Your task to perform on an android device: change keyboard looks Image 0: 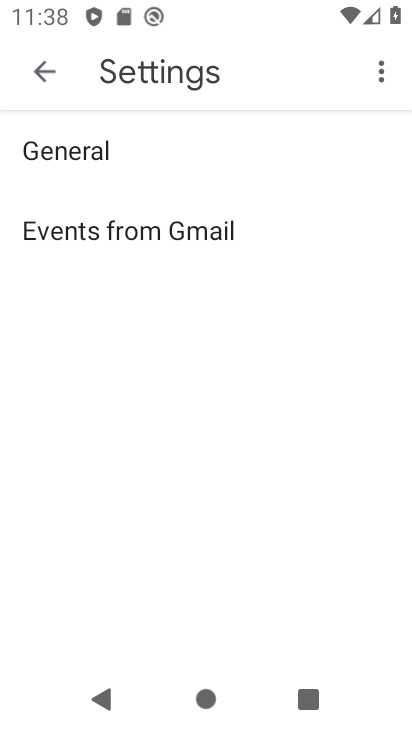
Step 0: press home button
Your task to perform on an android device: change keyboard looks Image 1: 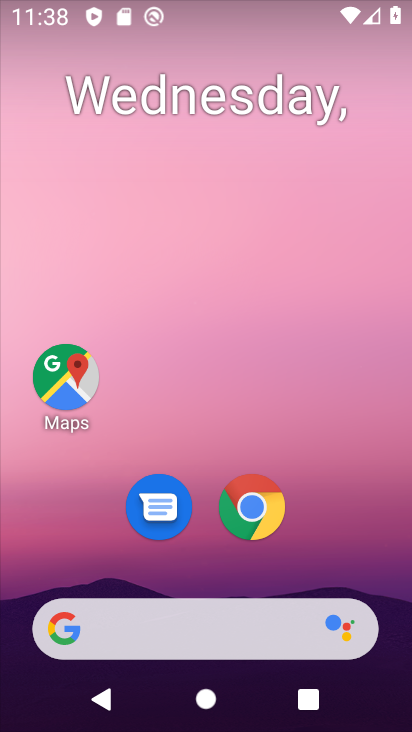
Step 1: drag from (265, 607) to (360, 84)
Your task to perform on an android device: change keyboard looks Image 2: 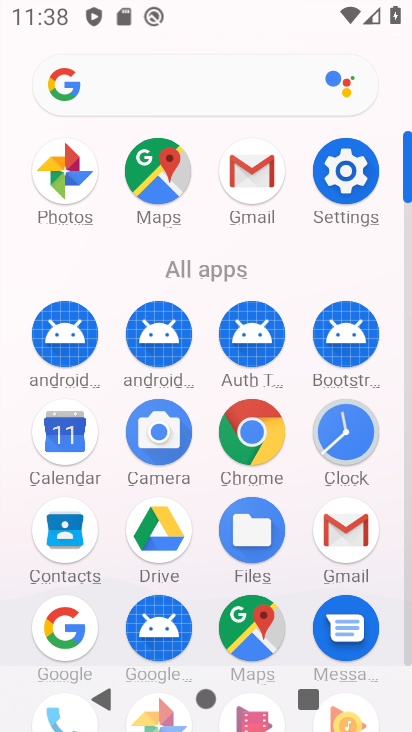
Step 2: click (348, 172)
Your task to perform on an android device: change keyboard looks Image 3: 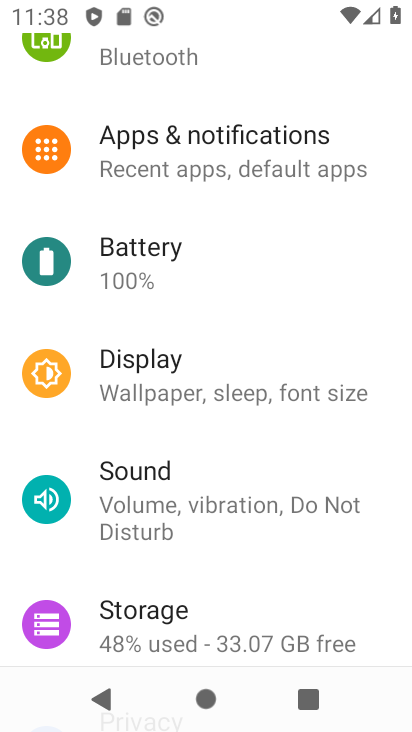
Step 3: drag from (261, 485) to (286, 169)
Your task to perform on an android device: change keyboard looks Image 4: 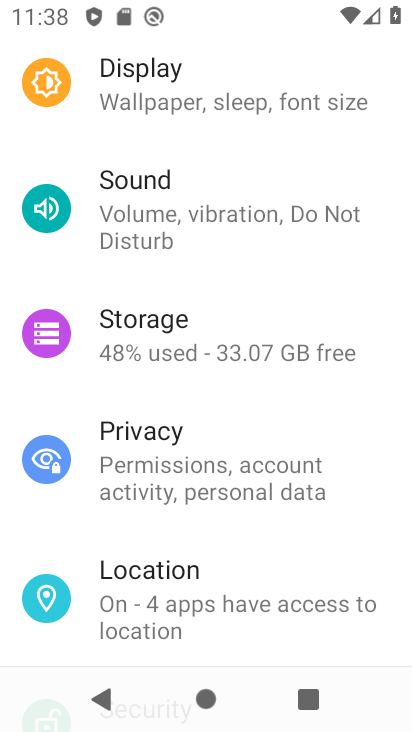
Step 4: drag from (242, 513) to (267, 227)
Your task to perform on an android device: change keyboard looks Image 5: 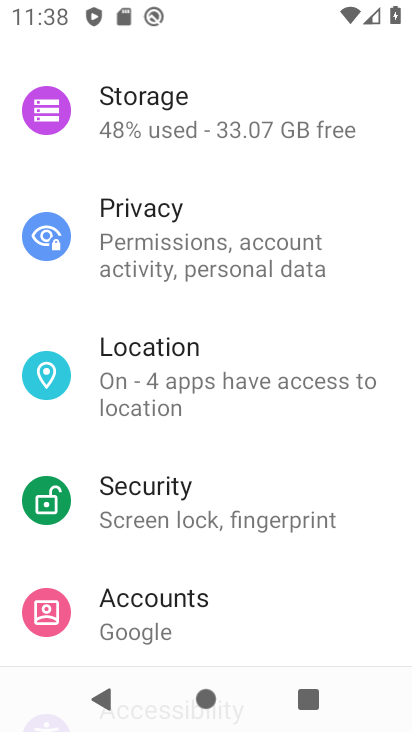
Step 5: drag from (248, 527) to (323, 184)
Your task to perform on an android device: change keyboard looks Image 6: 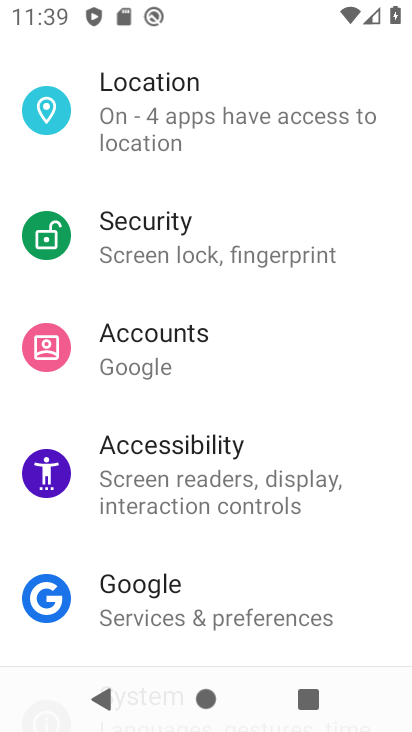
Step 6: drag from (257, 465) to (284, 206)
Your task to perform on an android device: change keyboard looks Image 7: 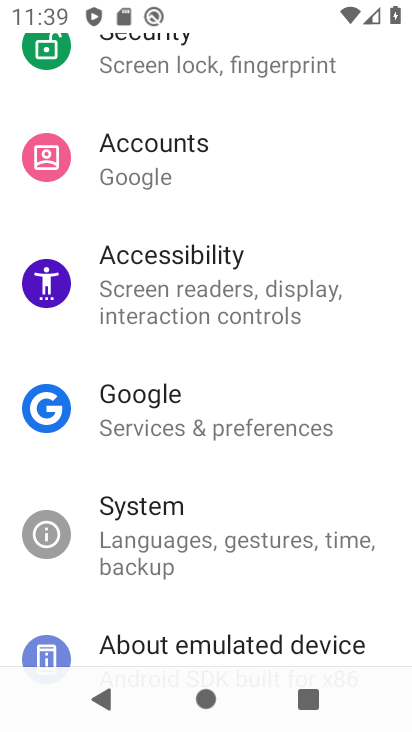
Step 7: click (222, 540)
Your task to perform on an android device: change keyboard looks Image 8: 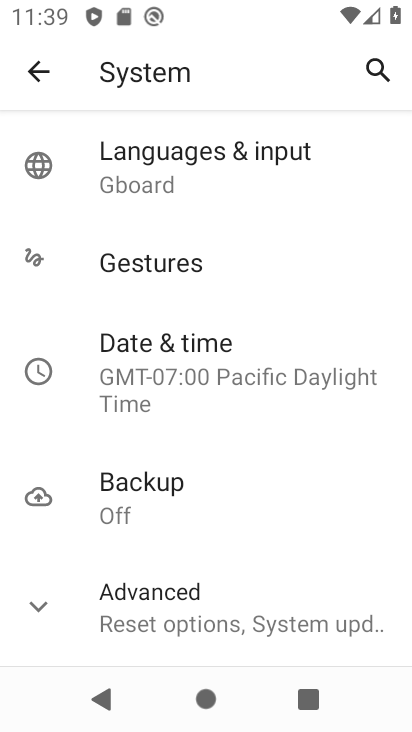
Step 8: click (179, 163)
Your task to perform on an android device: change keyboard looks Image 9: 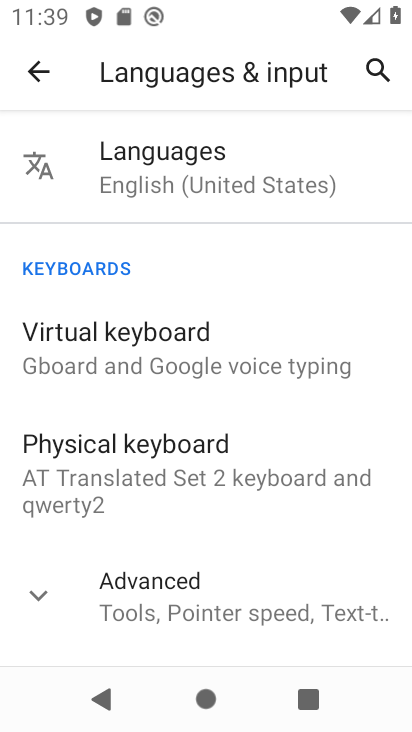
Step 9: click (201, 332)
Your task to perform on an android device: change keyboard looks Image 10: 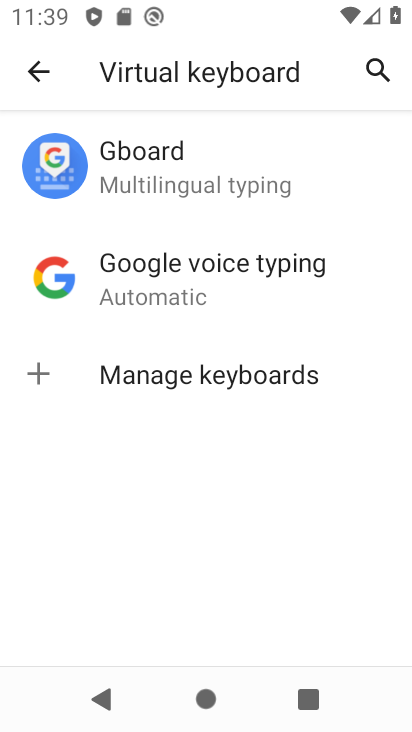
Step 10: click (179, 184)
Your task to perform on an android device: change keyboard looks Image 11: 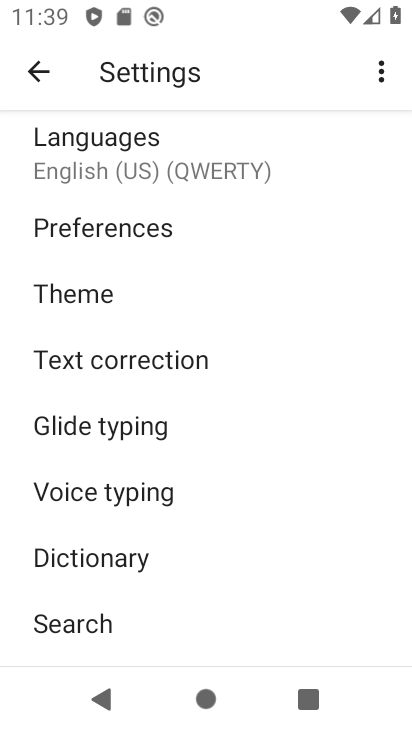
Step 11: click (183, 526)
Your task to perform on an android device: change keyboard looks Image 12: 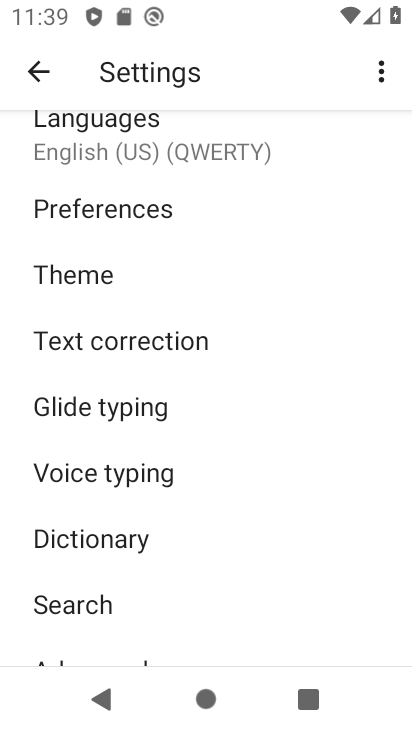
Step 12: click (129, 278)
Your task to perform on an android device: change keyboard looks Image 13: 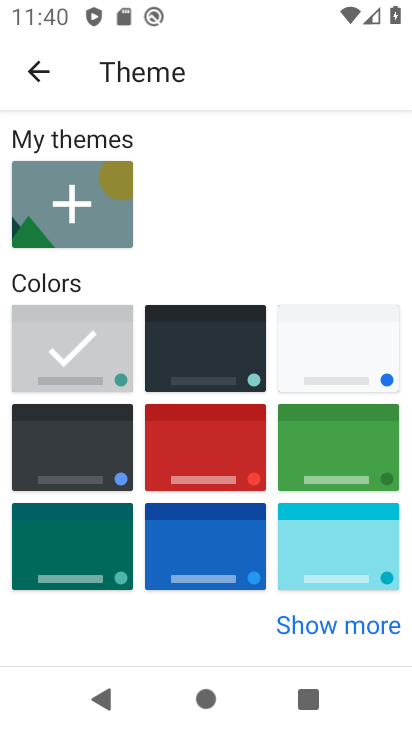
Step 13: click (236, 451)
Your task to perform on an android device: change keyboard looks Image 14: 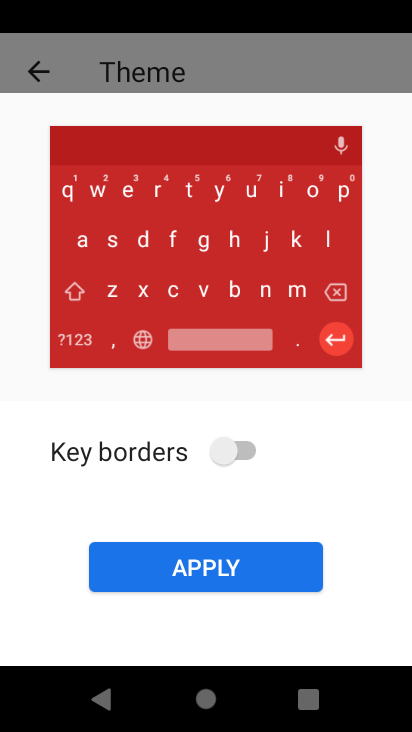
Step 14: click (275, 569)
Your task to perform on an android device: change keyboard looks Image 15: 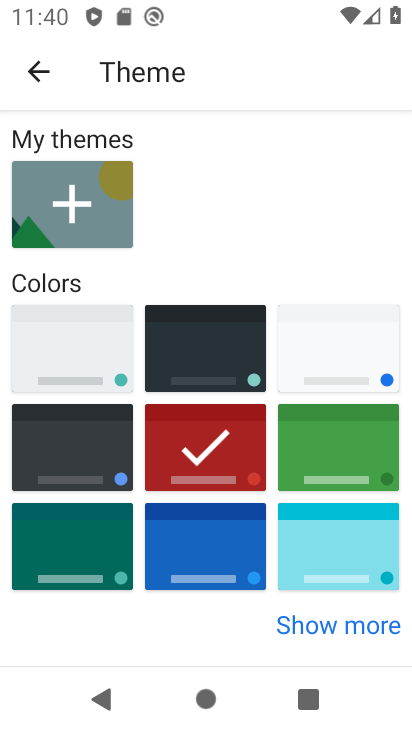
Step 15: task complete